Your task to perform on an android device: Open location settings Image 0: 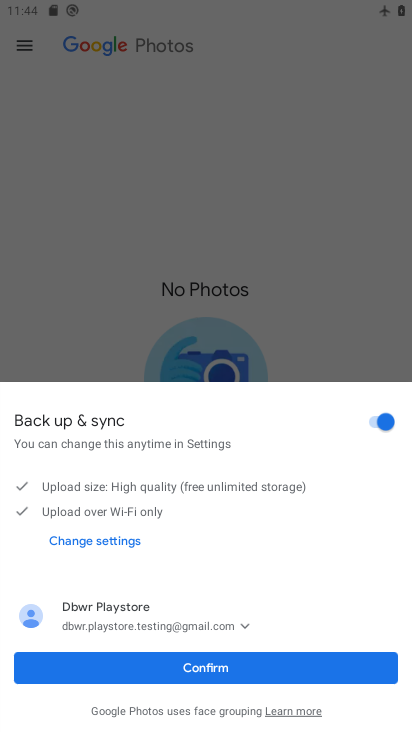
Step 0: press home button
Your task to perform on an android device: Open location settings Image 1: 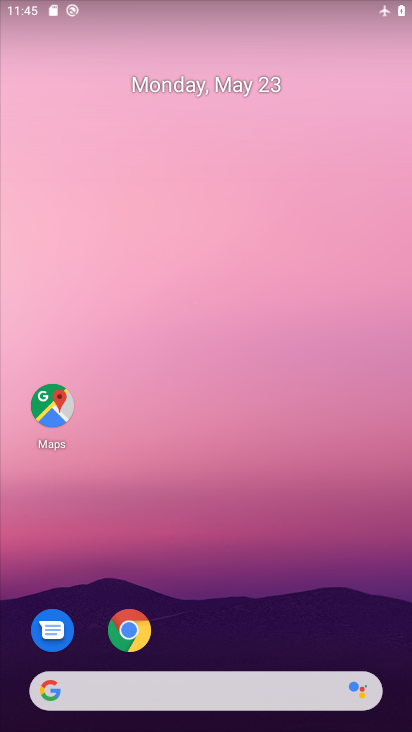
Step 1: drag from (207, 619) to (359, 0)
Your task to perform on an android device: Open location settings Image 2: 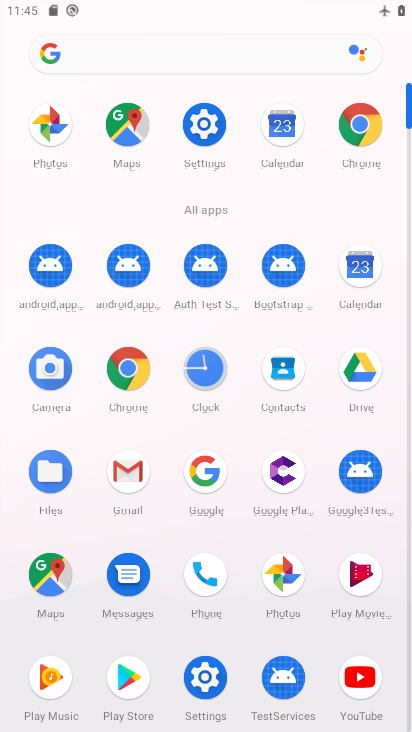
Step 2: click (201, 147)
Your task to perform on an android device: Open location settings Image 3: 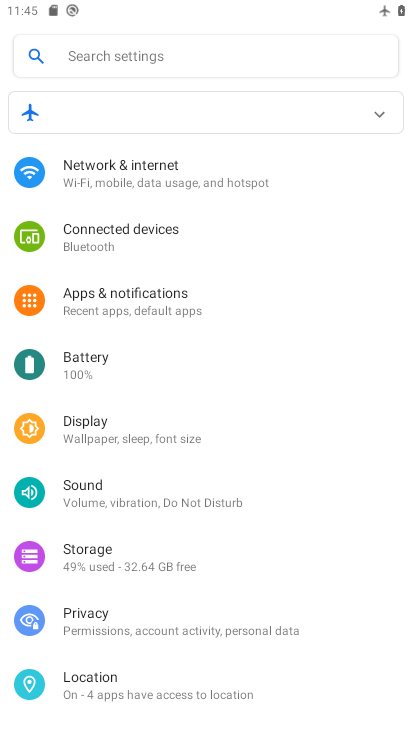
Step 3: click (121, 683)
Your task to perform on an android device: Open location settings Image 4: 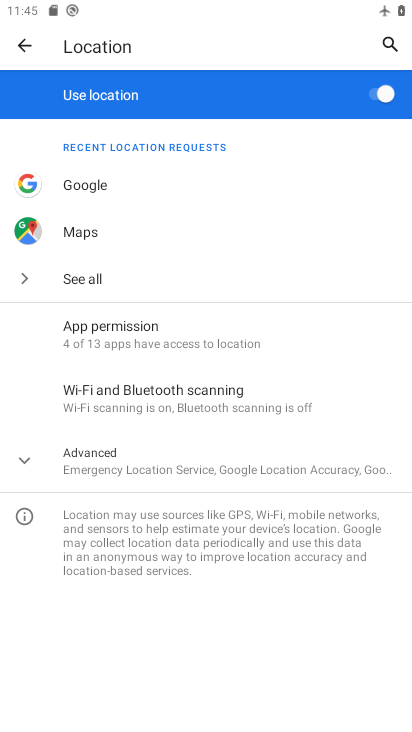
Step 4: task complete